Your task to perform on an android device: see creations saved in the google photos Image 0: 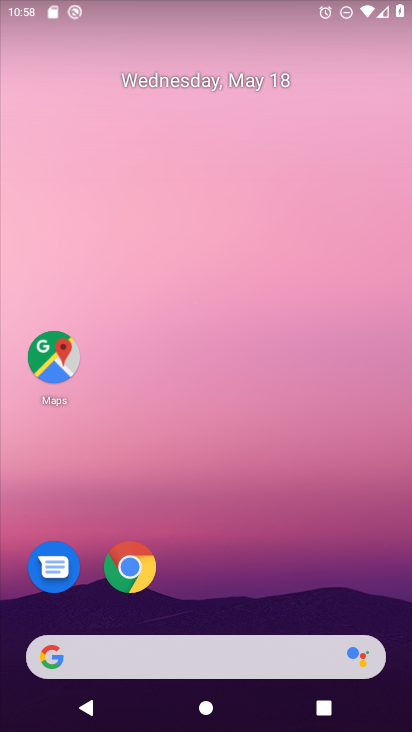
Step 0: drag from (285, 680) to (297, 109)
Your task to perform on an android device: see creations saved in the google photos Image 1: 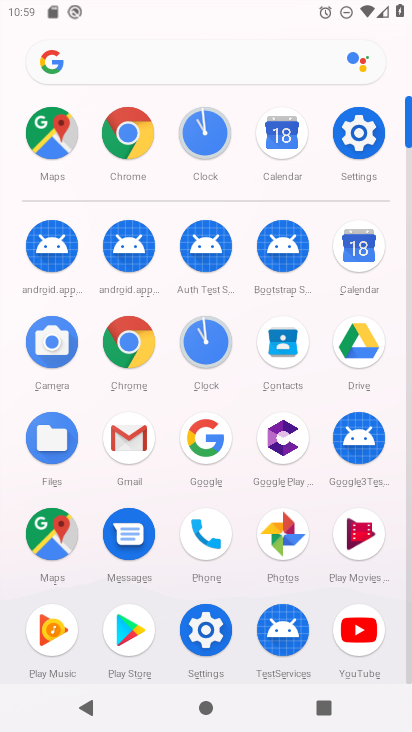
Step 1: click (264, 536)
Your task to perform on an android device: see creations saved in the google photos Image 2: 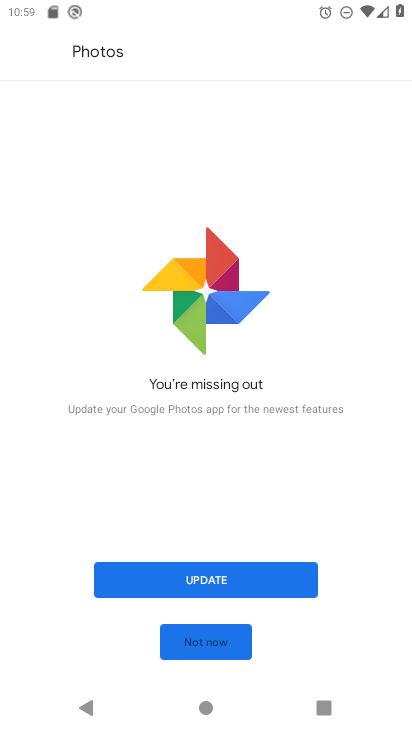
Step 2: click (217, 571)
Your task to perform on an android device: see creations saved in the google photos Image 3: 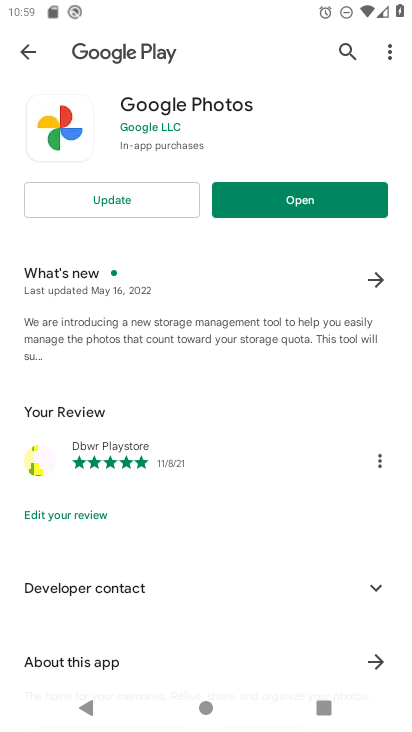
Step 3: click (279, 186)
Your task to perform on an android device: see creations saved in the google photos Image 4: 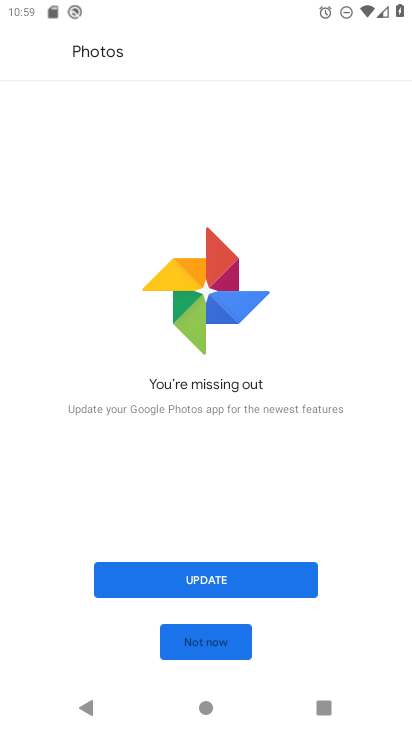
Step 4: click (218, 583)
Your task to perform on an android device: see creations saved in the google photos Image 5: 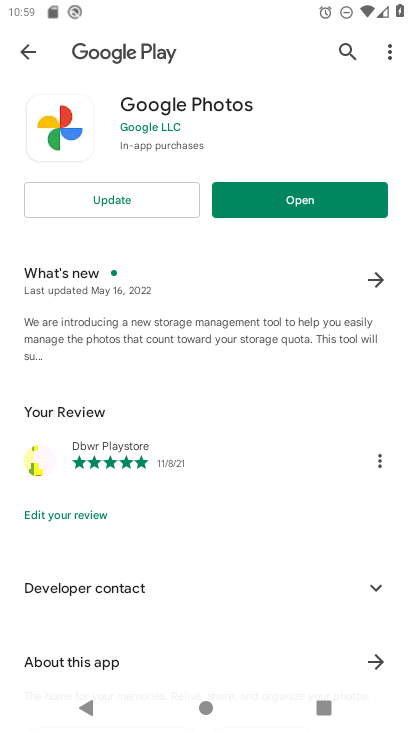
Step 5: click (105, 198)
Your task to perform on an android device: see creations saved in the google photos Image 6: 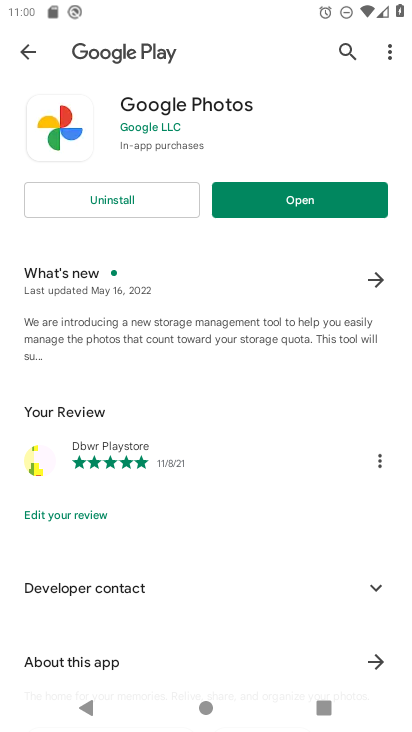
Step 6: click (307, 191)
Your task to perform on an android device: see creations saved in the google photos Image 7: 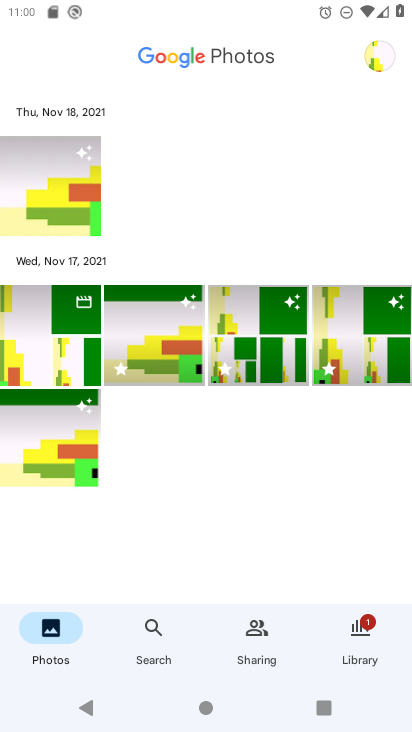
Step 7: click (240, 353)
Your task to perform on an android device: see creations saved in the google photos Image 8: 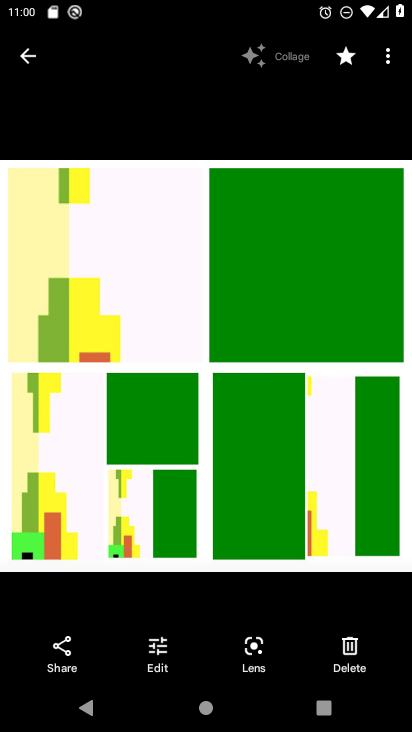
Step 8: click (393, 56)
Your task to perform on an android device: see creations saved in the google photos Image 9: 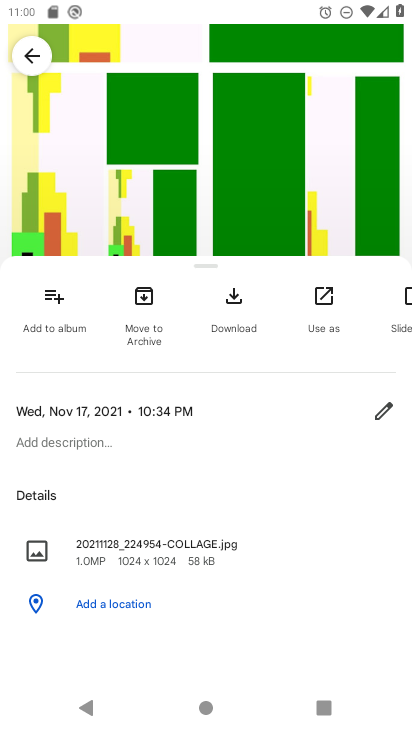
Step 9: task complete